Your task to perform on an android device: make emails show in primary in the gmail app Image 0: 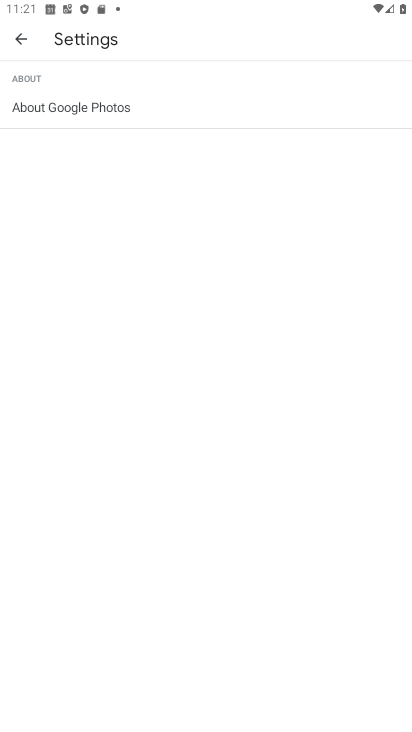
Step 0: press home button
Your task to perform on an android device: make emails show in primary in the gmail app Image 1: 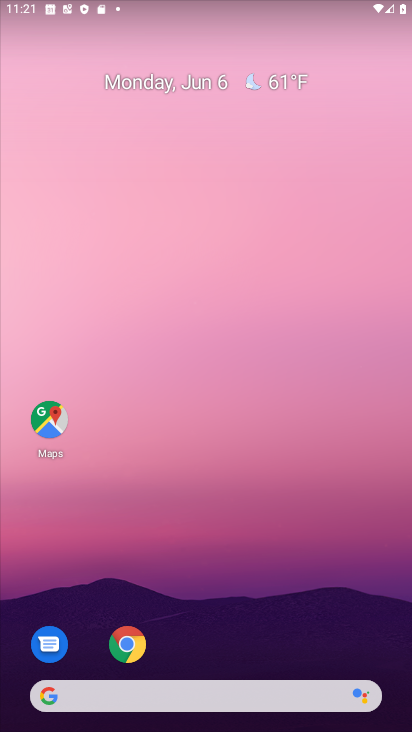
Step 1: drag from (260, 610) to (235, 37)
Your task to perform on an android device: make emails show in primary in the gmail app Image 2: 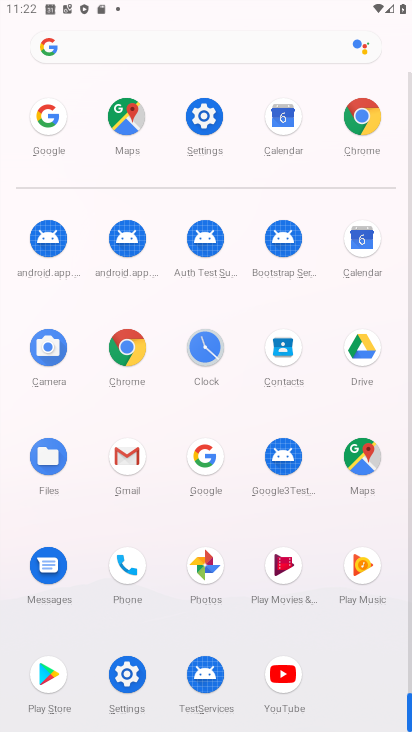
Step 2: click (124, 459)
Your task to perform on an android device: make emails show in primary in the gmail app Image 3: 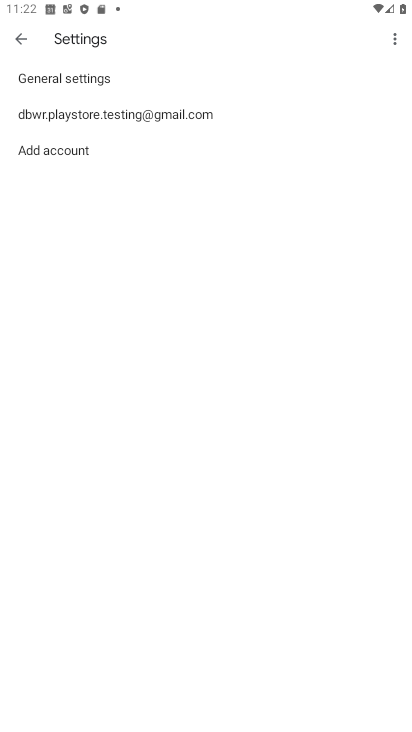
Step 3: click (76, 81)
Your task to perform on an android device: make emails show in primary in the gmail app Image 4: 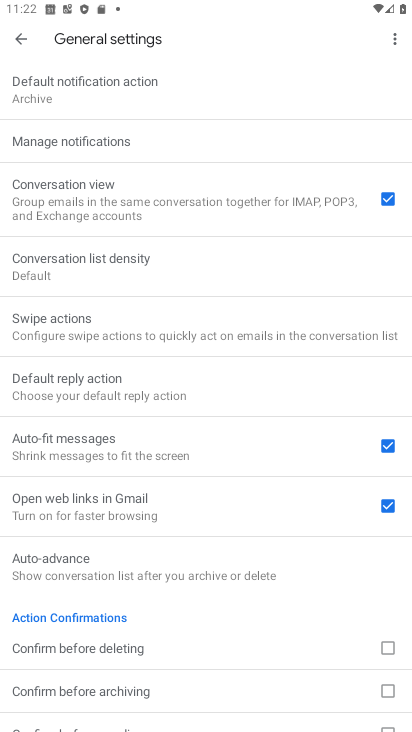
Step 4: task complete